Your task to perform on an android device: manage bookmarks in the chrome app Image 0: 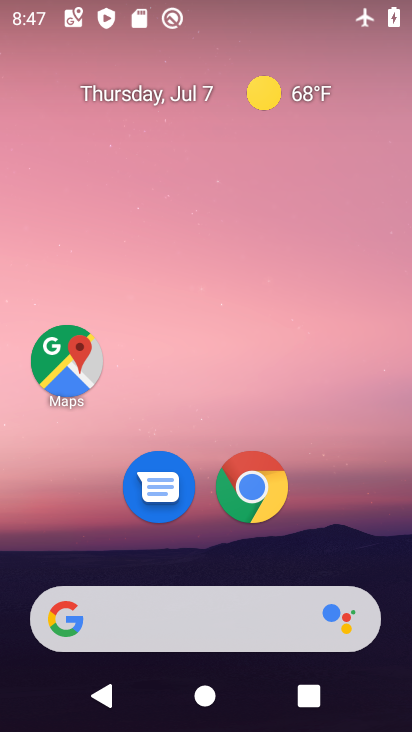
Step 0: drag from (206, 570) to (211, 124)
Your task to perform on an android device: manage bookmarks in the chrome app Image 1: 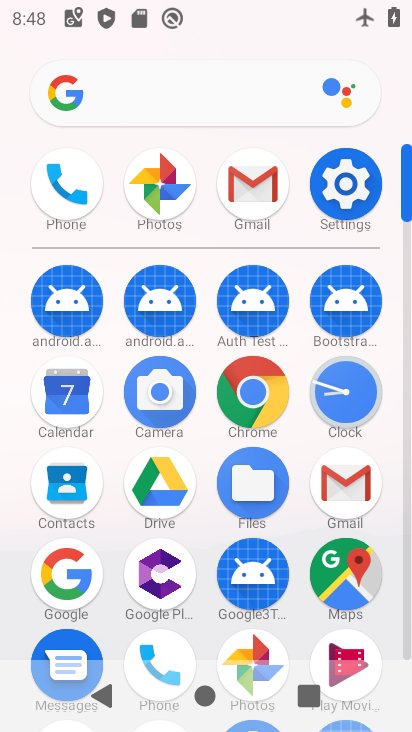
Step 1: click (268, 382)
Your task to perform on an android device: manage bookmarks in the chrome app Image 2: 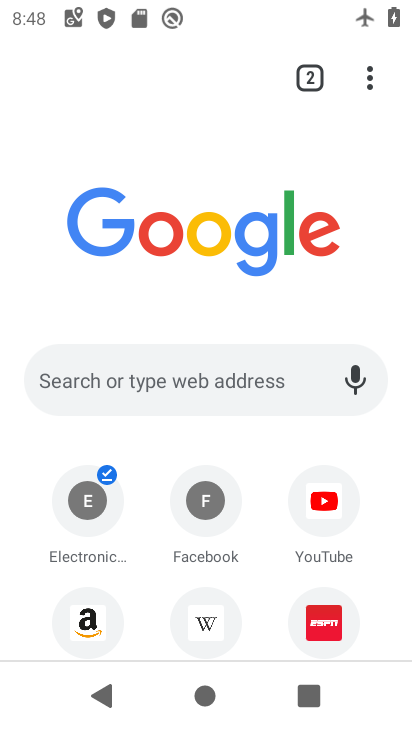
Step 2: click (369, 80)
Your task to perform on an android device: manage bookmarks in the chrome app Image 3: 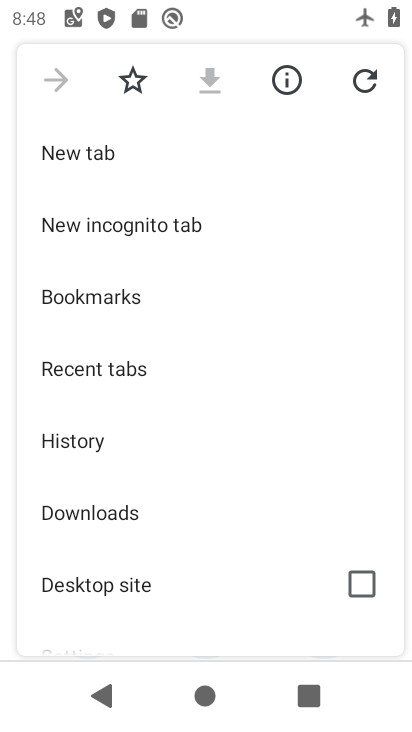
Step 3: click (89, 296)
Your task to perform on an android device: manage bookmarks in the chrome app Image 4: 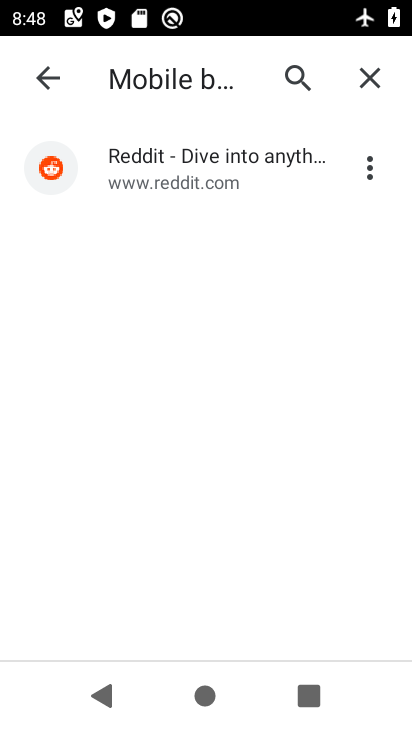
Step 4: click (377, 167)
Your task to perform on an android device: manage bookmarks in the chrome app Image 5: 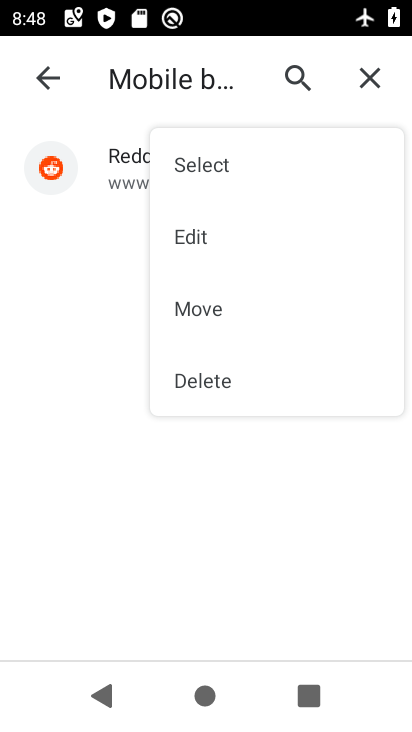
Step 5: click (202, 228)
Your task to perform on an android device: manage bookmarks in the chrome app Image 6: 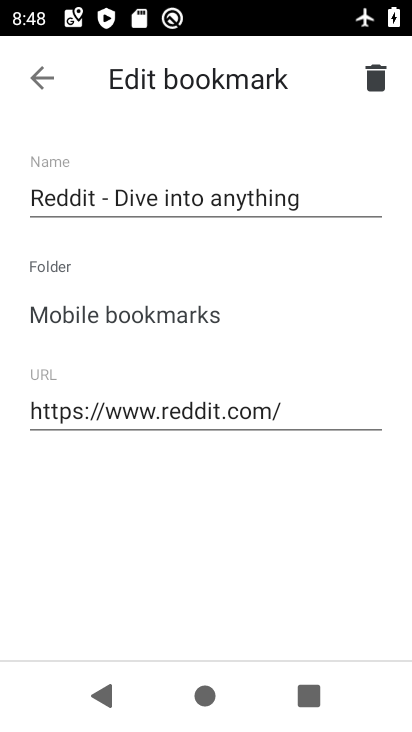
Step 6: task complete